Your task to perform on an android device: set the stopwatch Image 0: 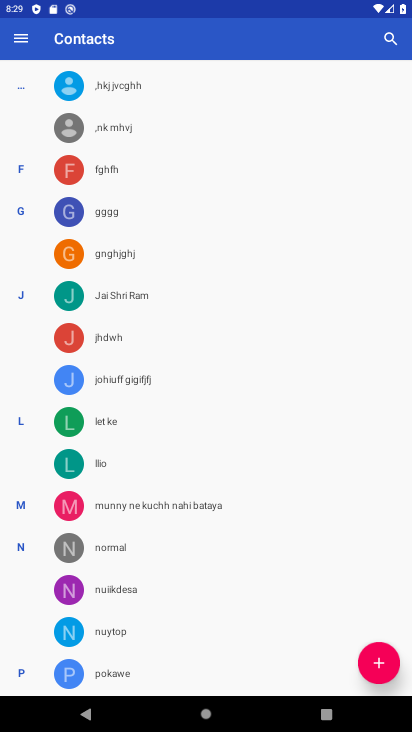
Step 0: press home button
Your task to perform on an android device: set the stopwatch Image 1: 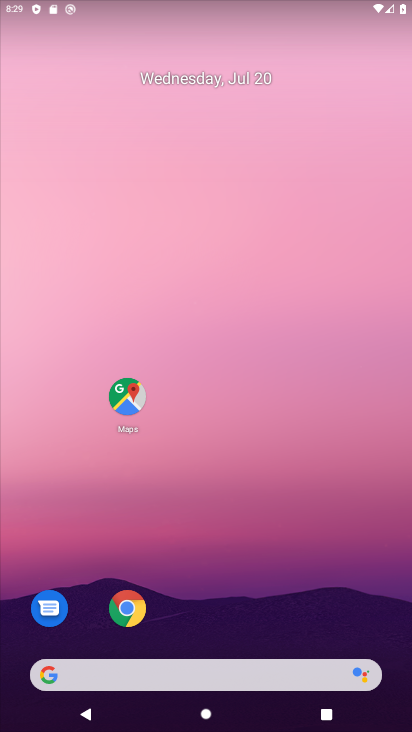
Step 1: drag from (243, 611) to (212, 124)
Your task to perform on an android device: set the stopwatch Image 2: 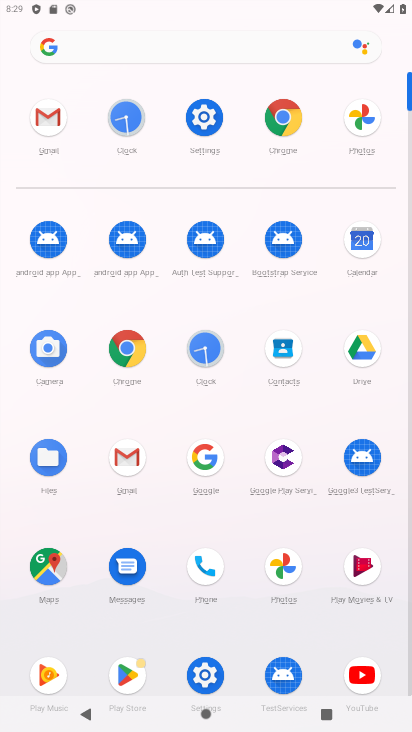
Step 2: click (215, 362)
Your task to perform on an android device: set the stopwatch Image 3: 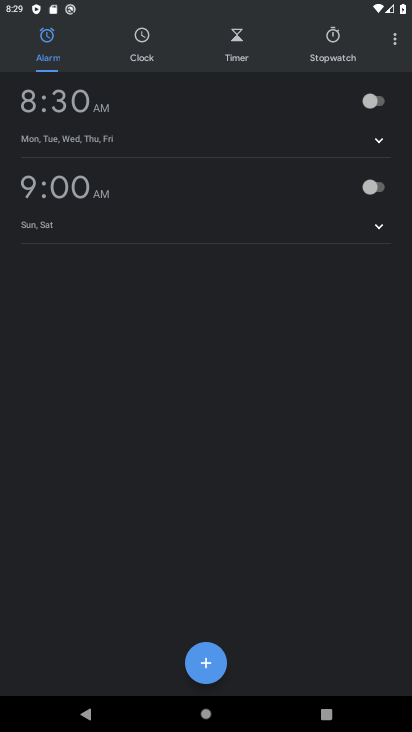
Step 3: click (333, 57)
Your task to perform on an android device: set the stopwatch Image 4: 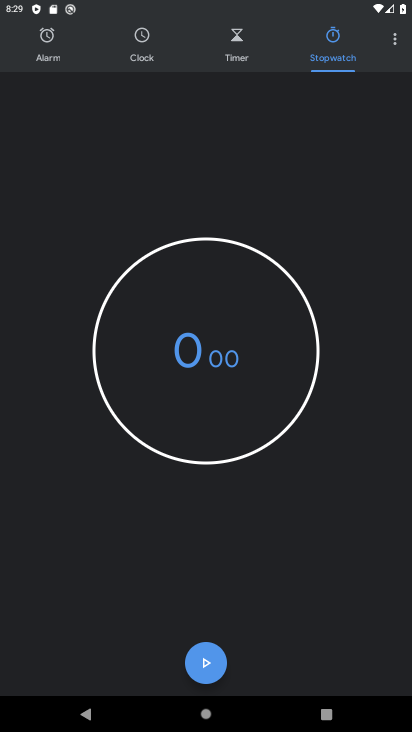
Step 4: click (214, 660)
Your task to perform on an android device: set the stopwatch Image 5: 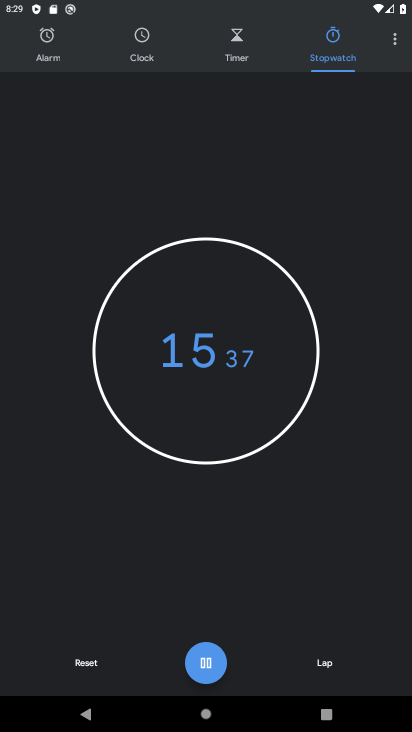
Step 5: task complete